Your task to perform on an android device: open sync settings in chrome Image 0: 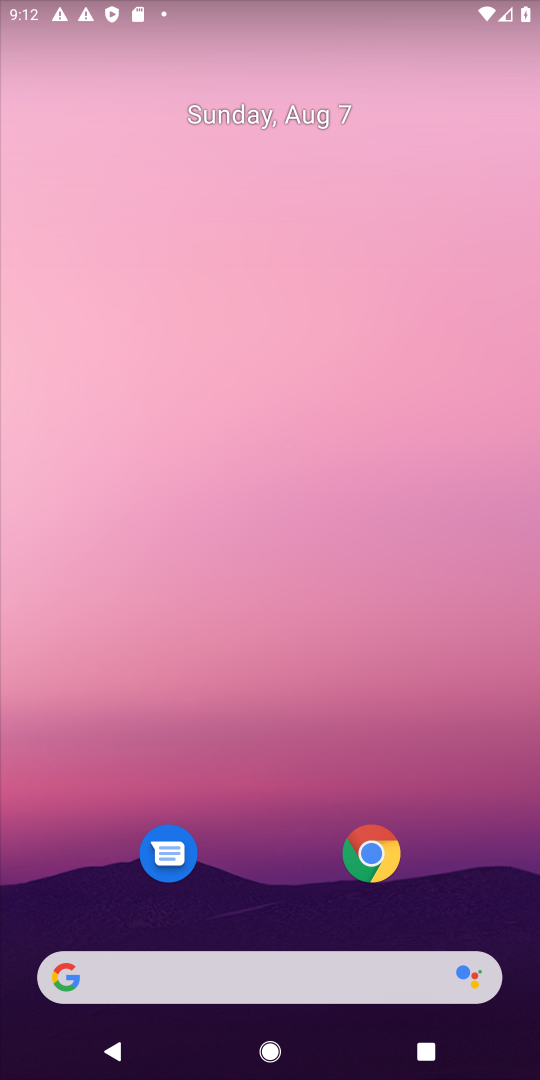
Step 0: press home button
Your task to perform on an android device: open sync settings in chrome Image 1: 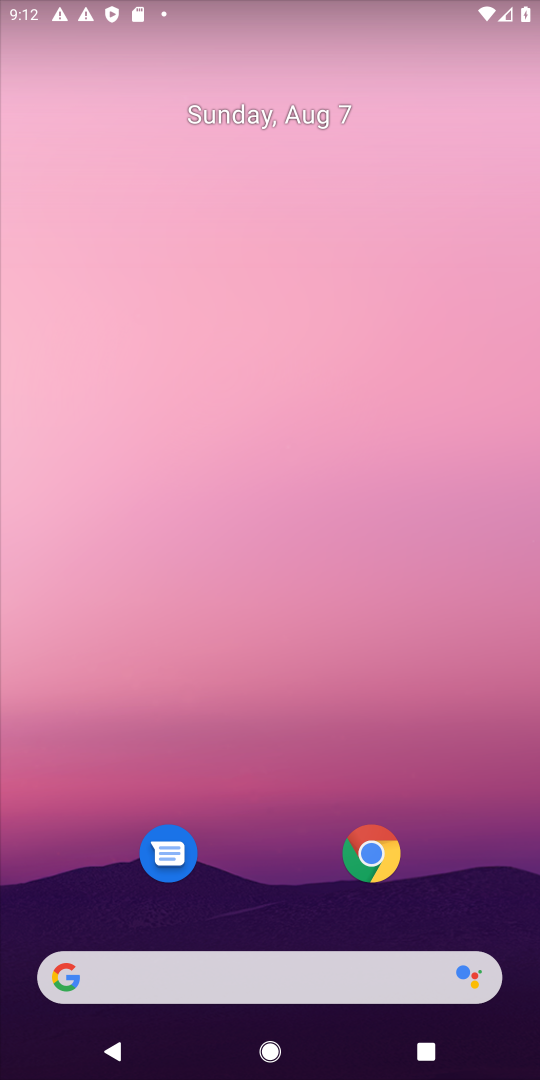
Step 1: drag from (480, 865) to (489, 423)
Your task to perform on an android device: open sync settings in chrome Image 2: 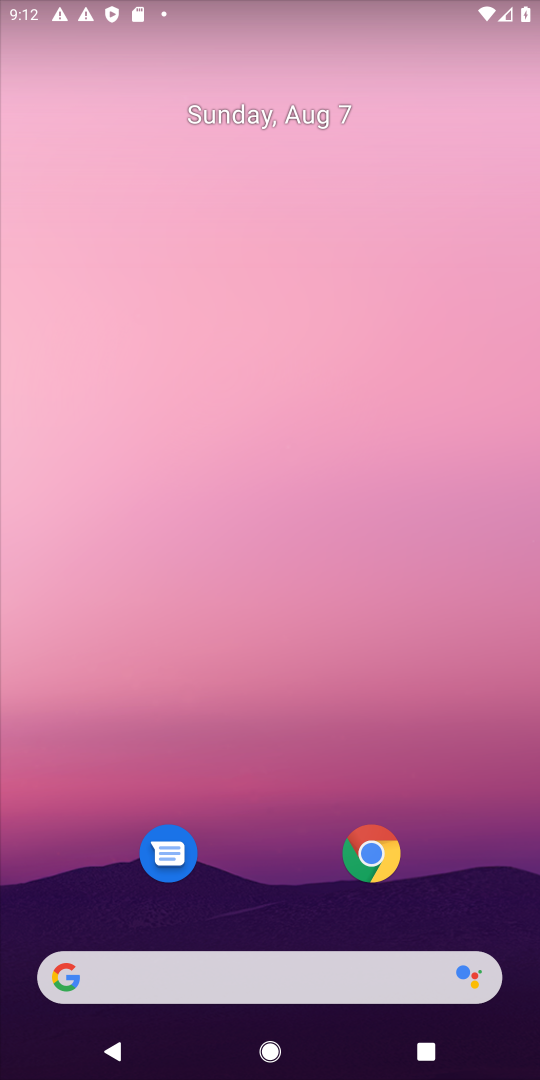
Step 2: drag from (464, 867) to (490, 214)
Your task to perform on an android device: open sync settings in chrome Image 3: 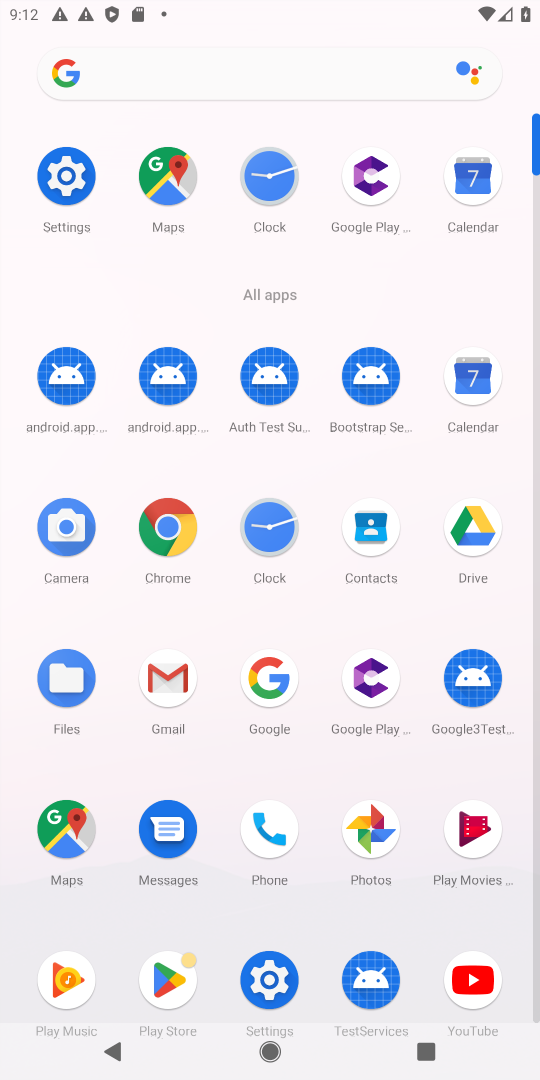
Step 3: click (180, 524)
Your task to perform on an android device: open sync settings in chrome Image 4: 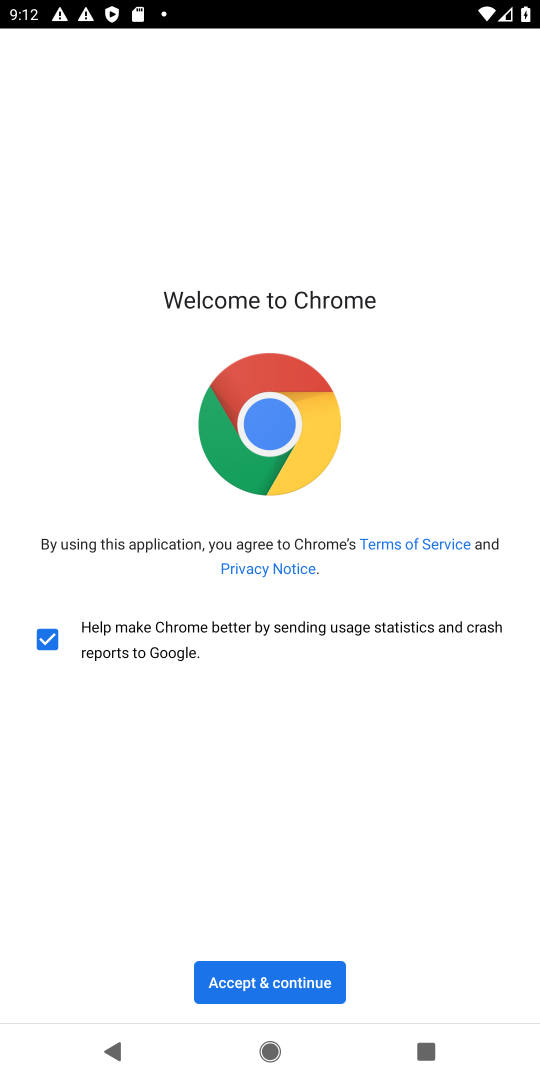
Step 4: click (248, 987)
Your task to perform on an android device: open sync settings in chrome Image 5: 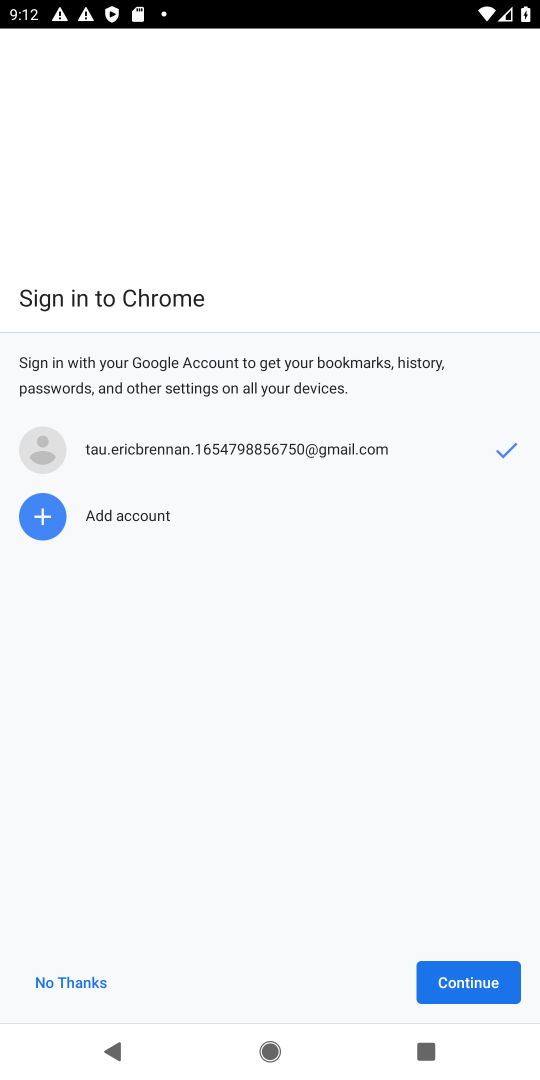
Step 5: click (481, 981)
Your task to perform on an android device: open sync settings in chrome Image 6: 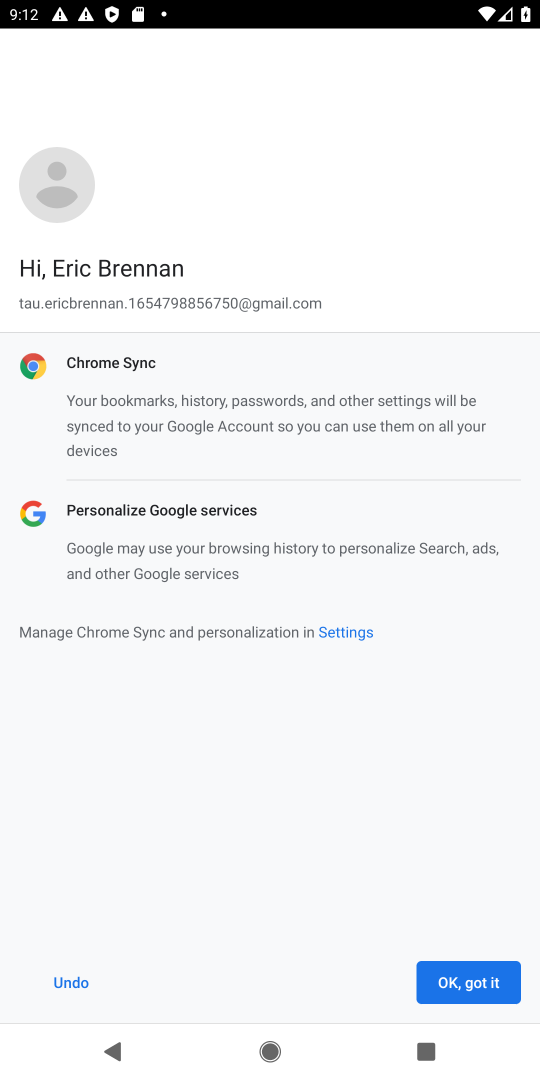
Step 6: click (481, 981)
Your task to perform on an android device: open sync settings in chrome Image 7: 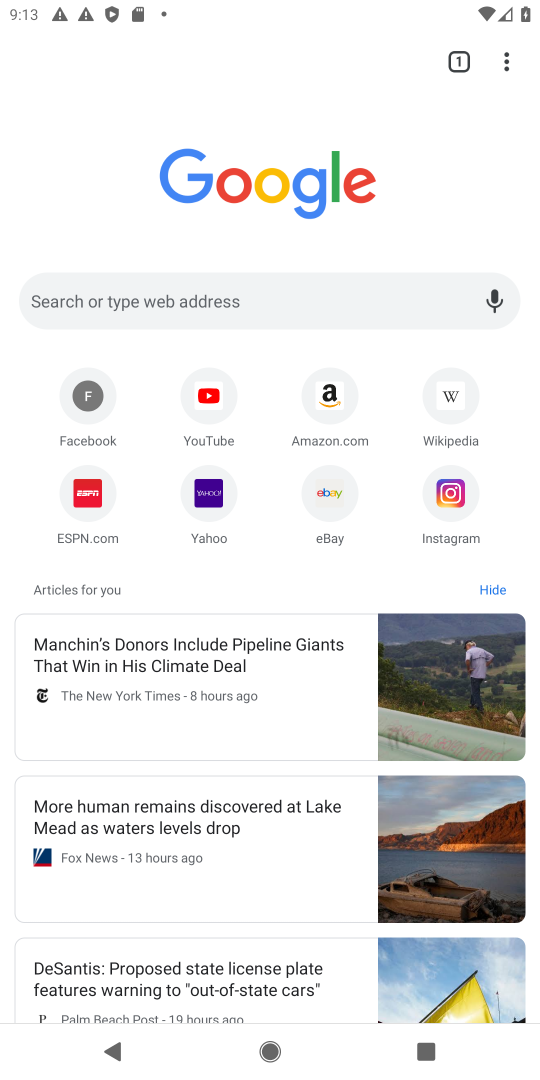
Step 7: click (504, 63)
Your task to perform on an android device: open sync settings in chrome Image 8: 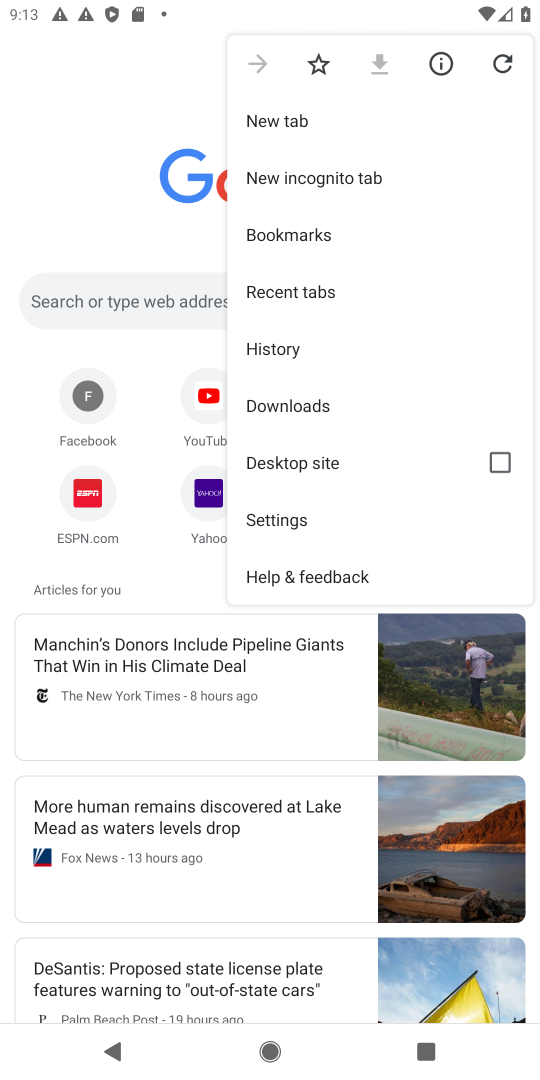
Step 8: click (282, 525)
Your task to perform on an android device: open sync settings in chrome Image 9: 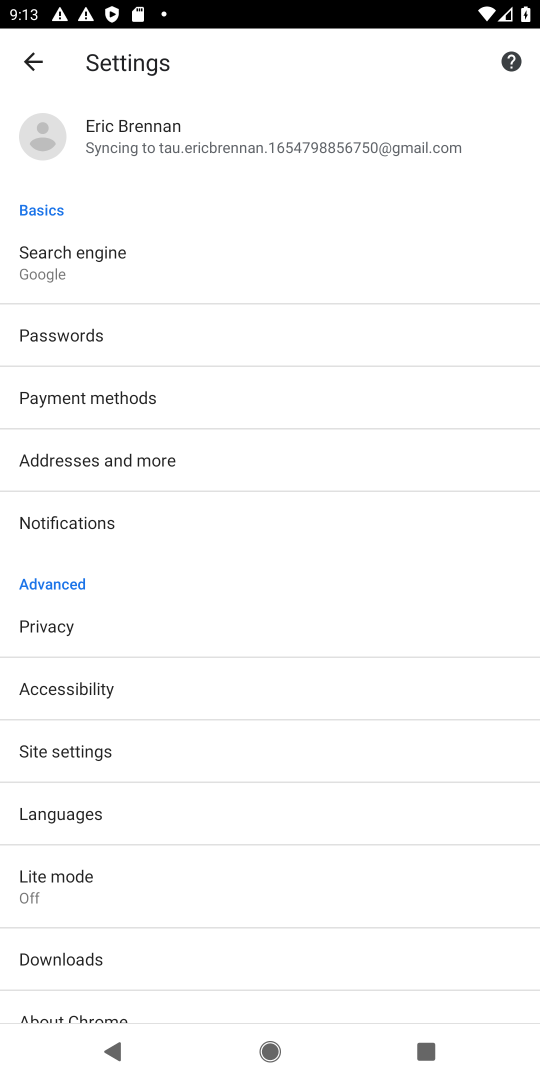
Step 9: drag from (410, 611) to (430, 483)
Your task to perform on an android device: open sync settings in chrome Image 10: 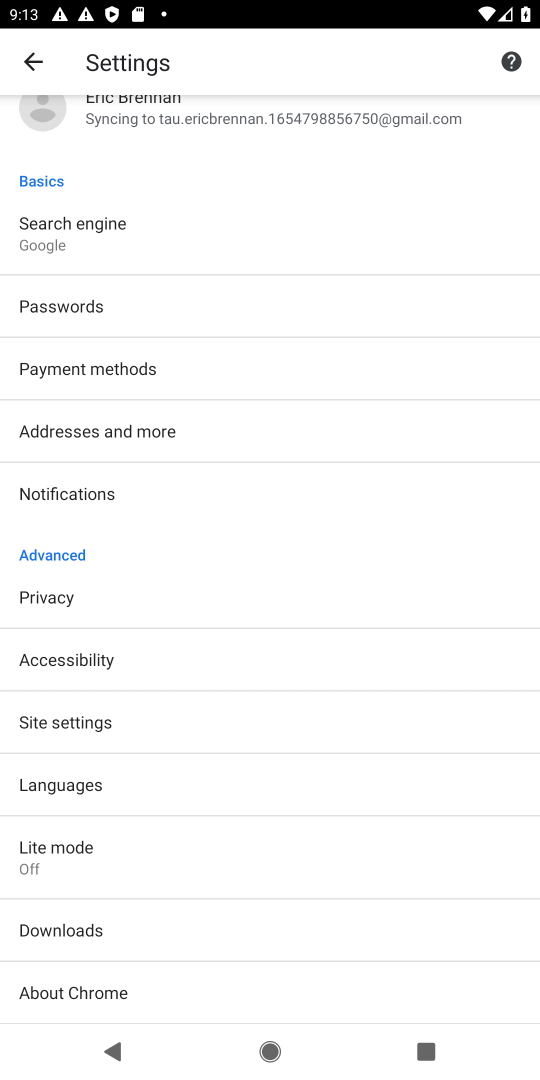
Step 10: drag from (441, 713) to (456, 498)
Your task to perform on an android device: open sync settings in chrome Image 11: 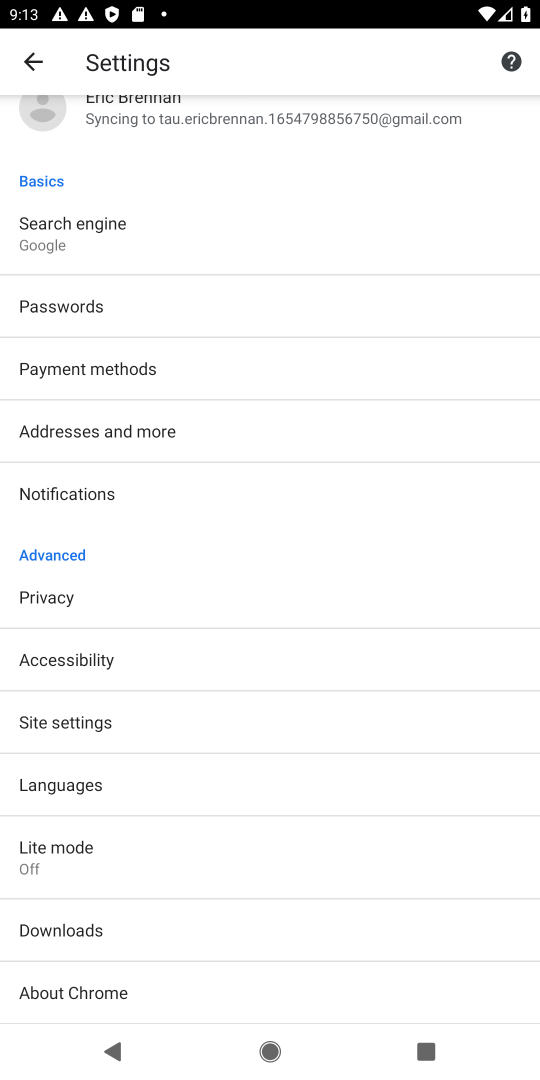
Step 11: click (355, 723)
Your task to perform on an android device: open sync settings in chrome Image 12: 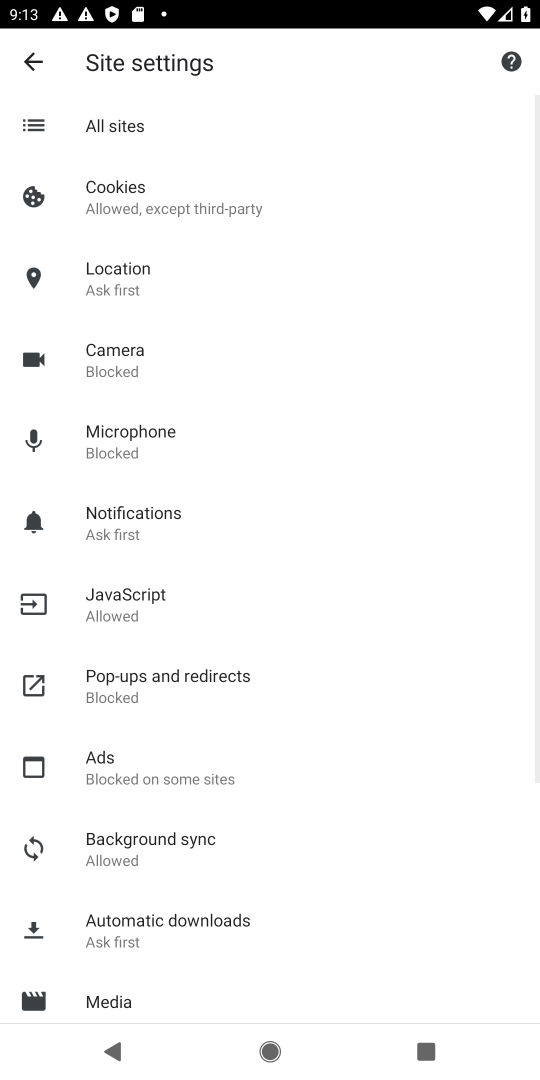
Step 12: drag from (449, 765) to (462, 554)
Your task to perform on an android device: open sync settings in chrome Image 13: 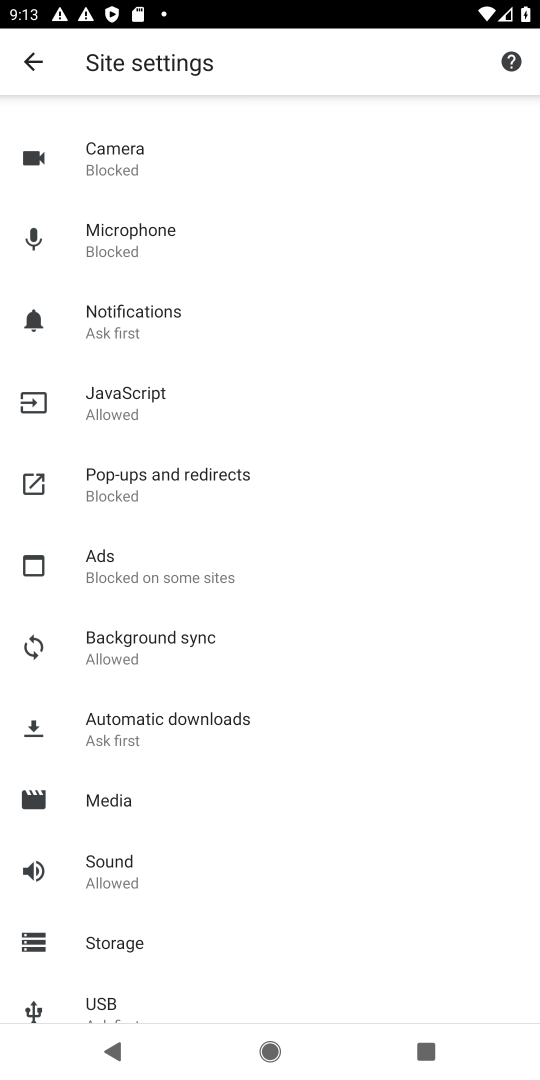
Step 13: drag from (462, 779) to (470, 557)
Your task to perform on an android device: open sync settings in chrome Image 14: 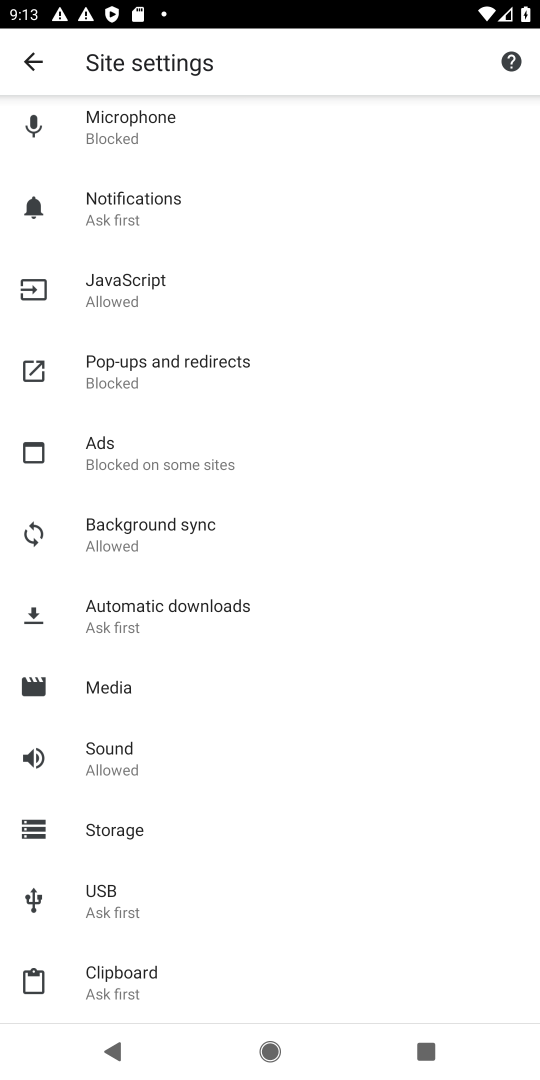
Step 14: drag from (424, 841) to (434, 553)
Your task to perform on an android device: open sync settings in chrome Image 15: 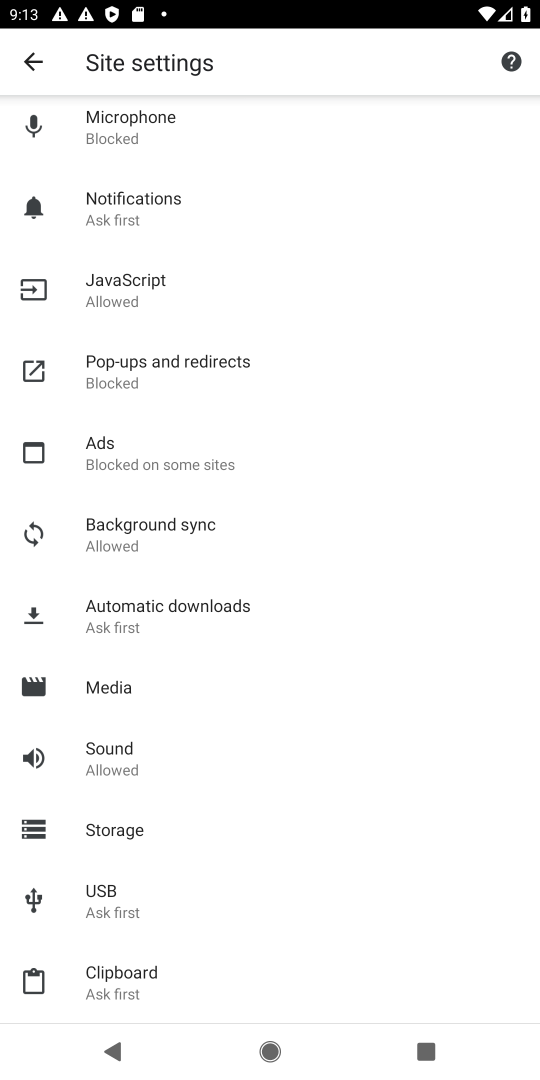
Step 15: drag from (436, 305) to (442, 484)
Your task to perform on an android device: open sync settings in chrome Image 16: 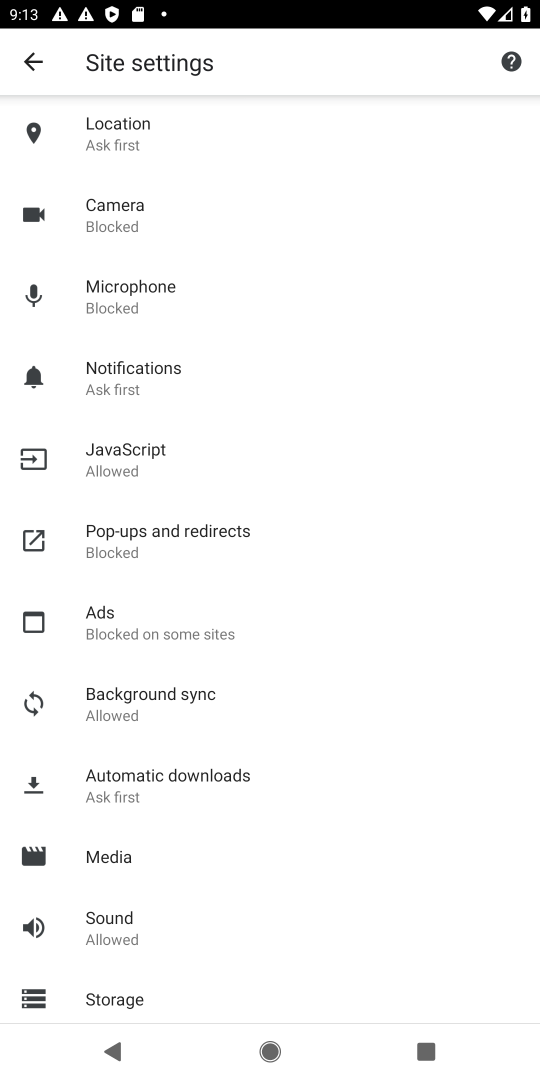
Step 16: drag from (426, 342) to (427, 481)
Your task to perform on an android device: open sync settings in chrome Image 17: 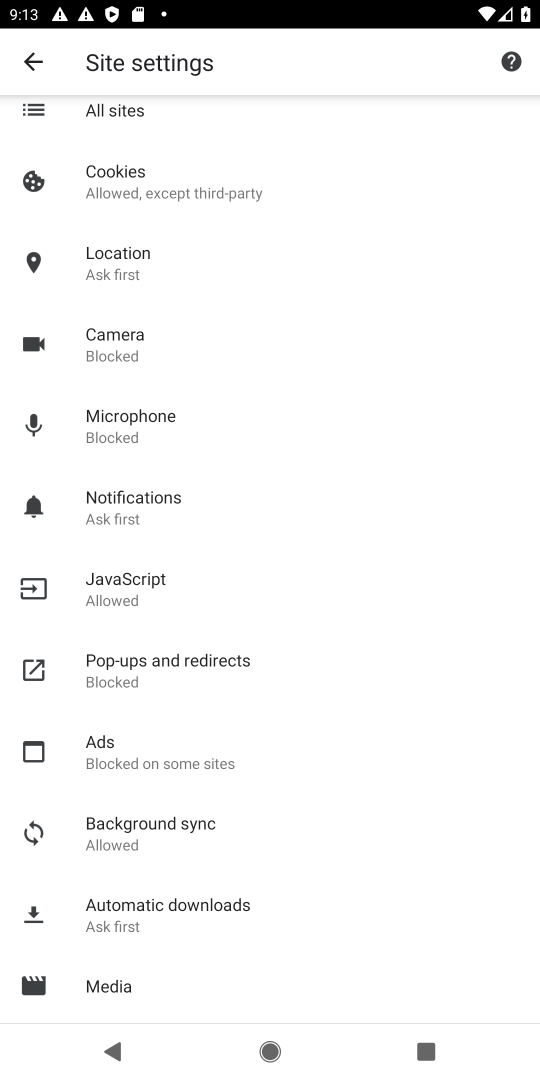
Step 17: click (249, 826)
Your task to perform on an android device: open sync settings in chrome Image 18: 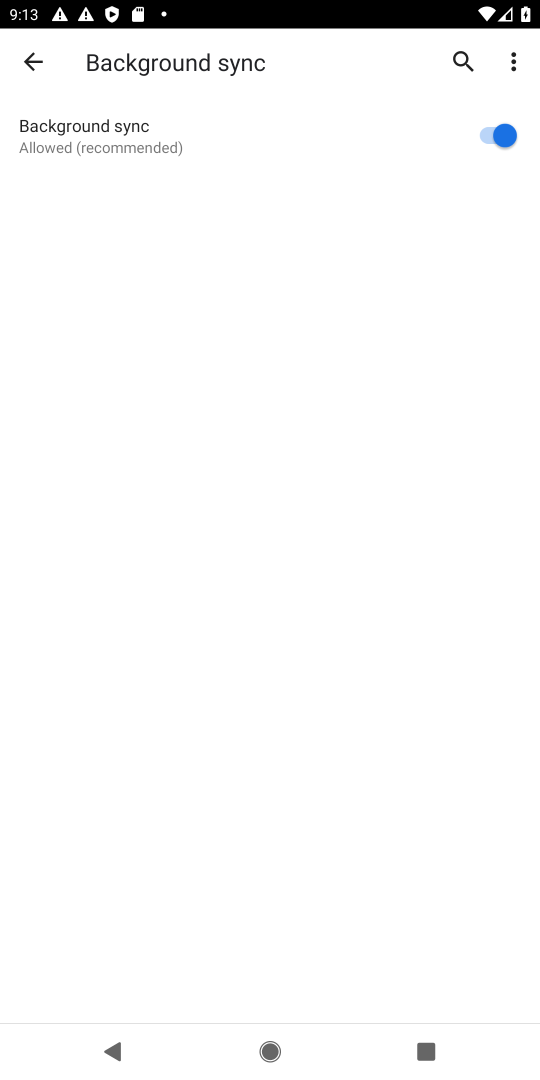
Step 18: task complete